Your task to perform on an android device: change text size in settings app Image 0: 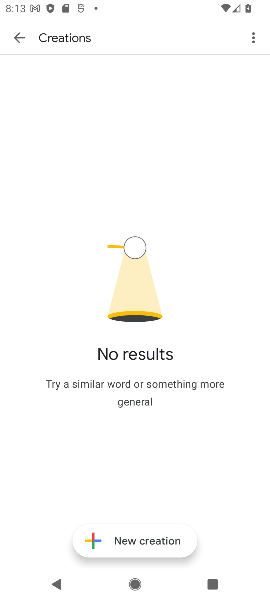
Step 0: press home button
Your task to perform on an android device: change text size in settings app Image 1: 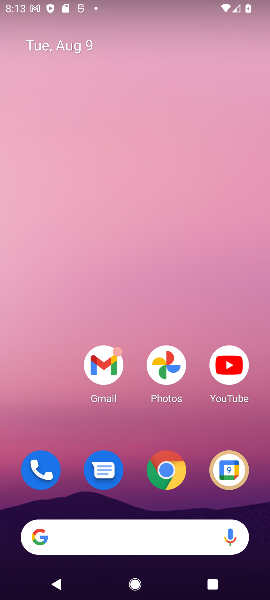
Step 1: drag from (130, 513) to (202, 0)
Your task to perform on an android device: change text size in settings app Image 2: 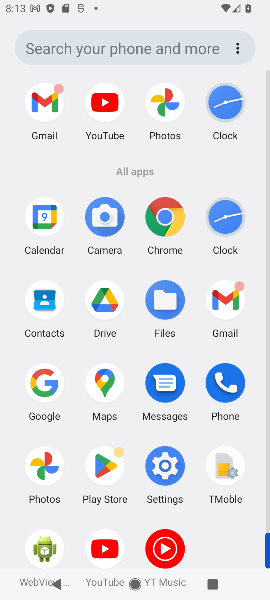
Step 2: click (165, 474)
Your task to perform on an android device: change text size in settings app Image 3: 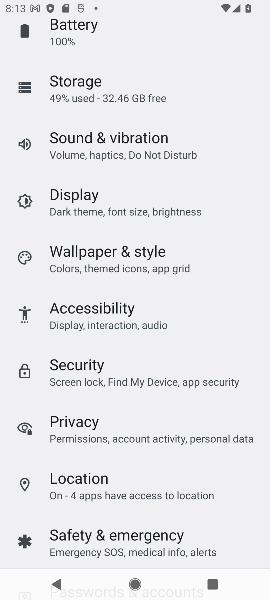
Step 3: click (88, 208)
Your task to perform on an android device: change text size in settings app Image 4: 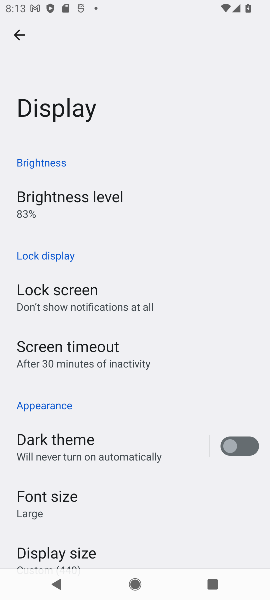
Step 4: drag from (92, 457) to (128, 269)
Your task to perform on an android device: change text size in settings app Image 5: 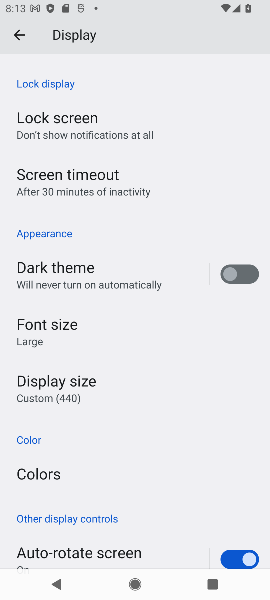
Step 5: click (49, 330)
Your task to perform on an android device: change text size in settings app Image 6: 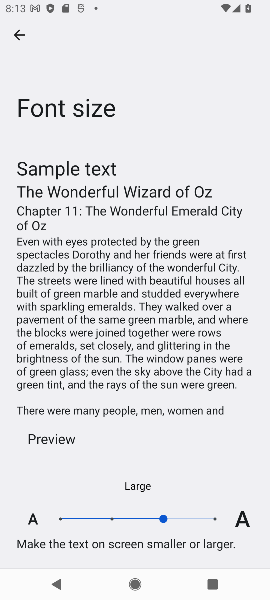
Step 6: click (115, 519)
Your task to perform on an android device: change text size in settings app Image 7: 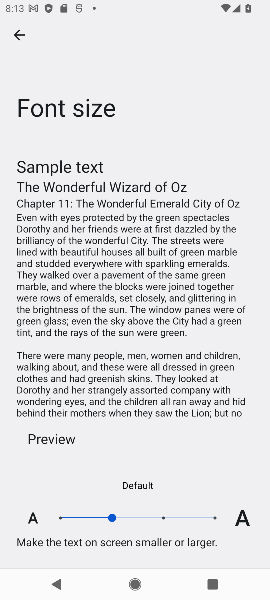
Step 7: task complete